Your task to perform on an android device: turn off translation in the chrome app Image 0: 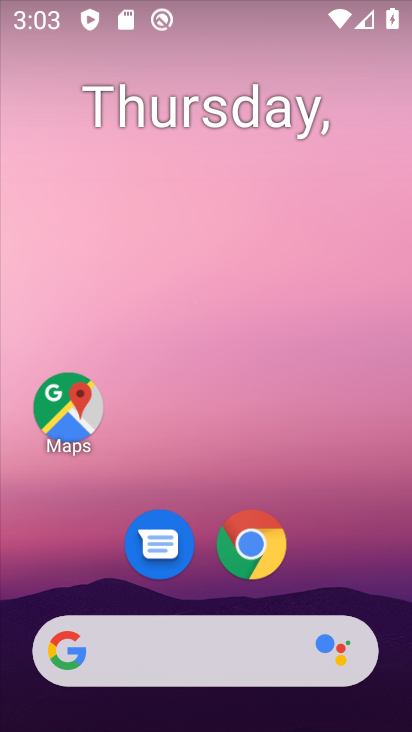
Step 0: click (243, 543)
Your task to perform on an android device: turn off translation in the chrome app Image 1: 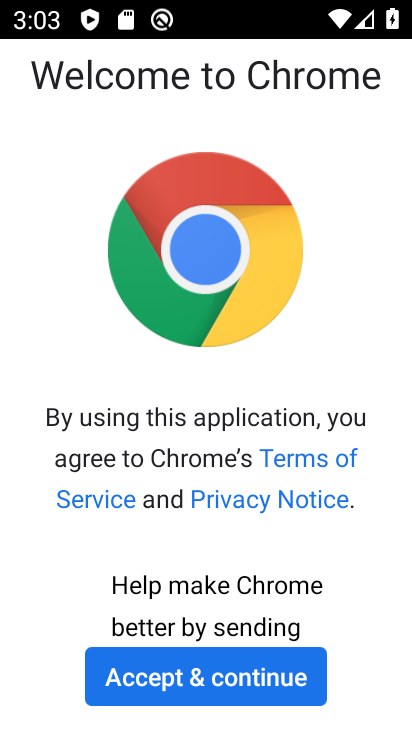
Step 1: click (160, 669)
Your task to perform on an android device: turn off translation in the chrome app Image 2: 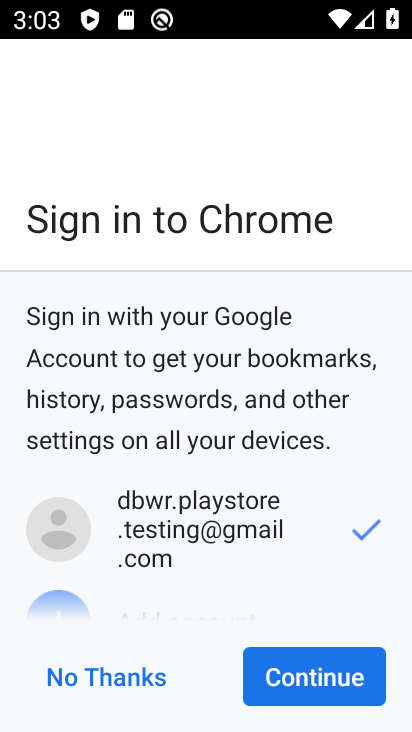
Step 2: click (264, 680)
Your task to perform on an android device: turn off translation in the chrome app Image 3: 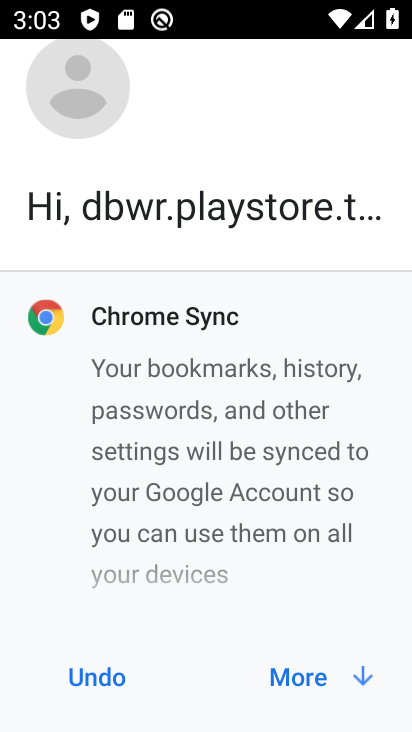
Step 3: click (265, 680)
Your task to perform on an android device: turn off translation in the chrome app Image 4: 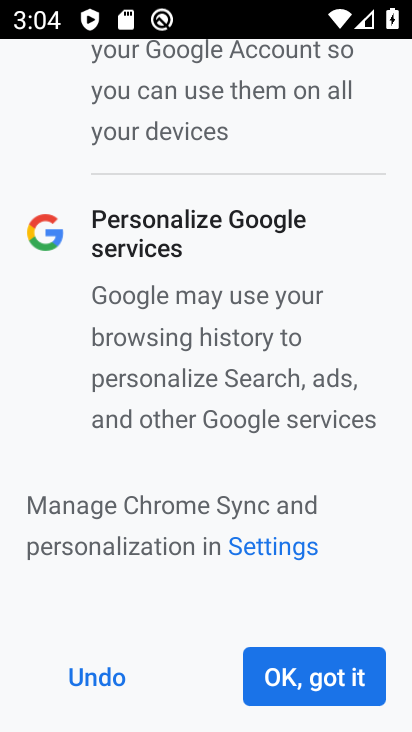
Step 4: click (273, 677)
Your task to perform on an android device: turn off translation in the chrome app Image 5: 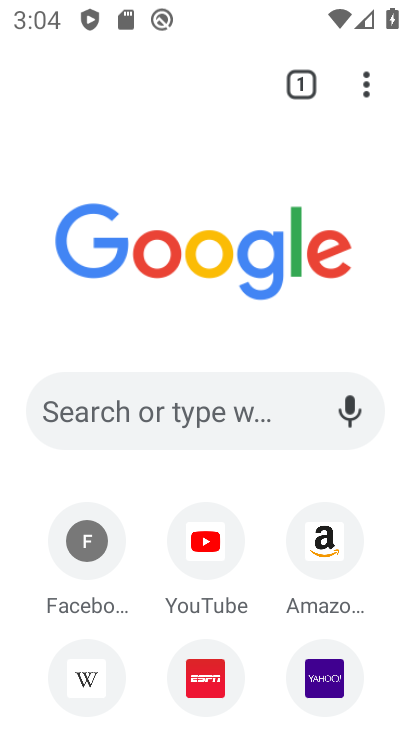
Step 5: click (368, 78)
Your task to perform on an android device: turn off translation in the chrome app Image 6: 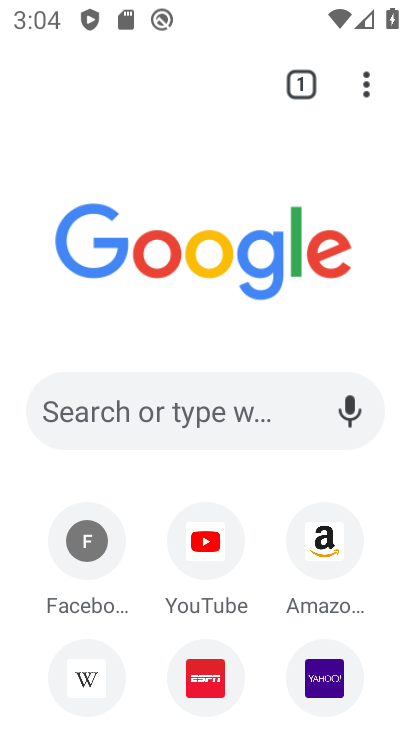
Step 6: click (368, 78)
Your task to perform on an android device: turn off translation in the chrome app Image 7: 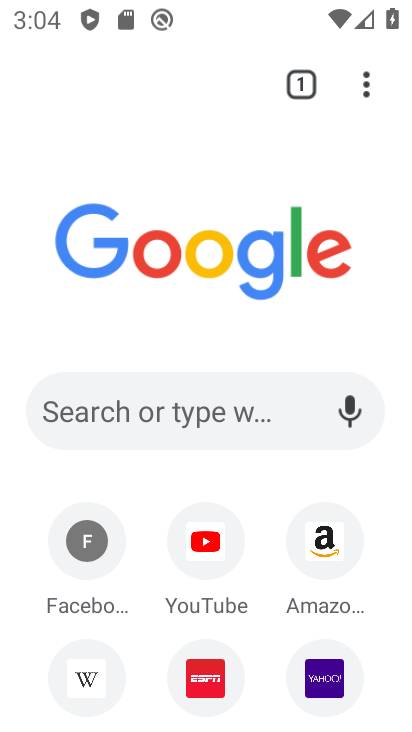
Step 7: click (359, 86)
Your task to perform on an android device: turn off translation in the chrome app Image 8: 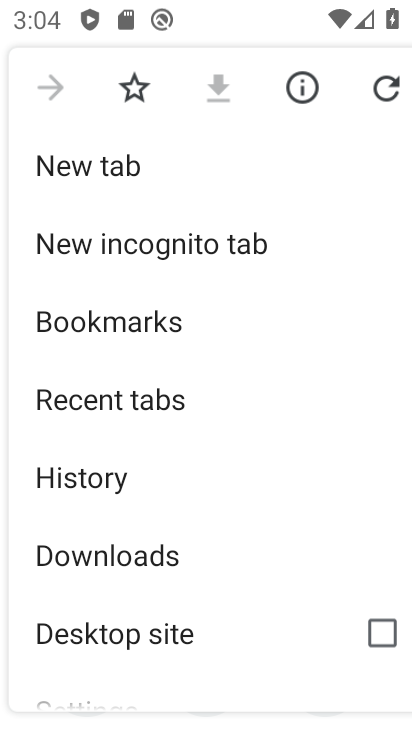
Step 8: drag from (140, 571) to (145, 254)
Your task to perform on an android device: turn off translation in the chrome app Image 9: 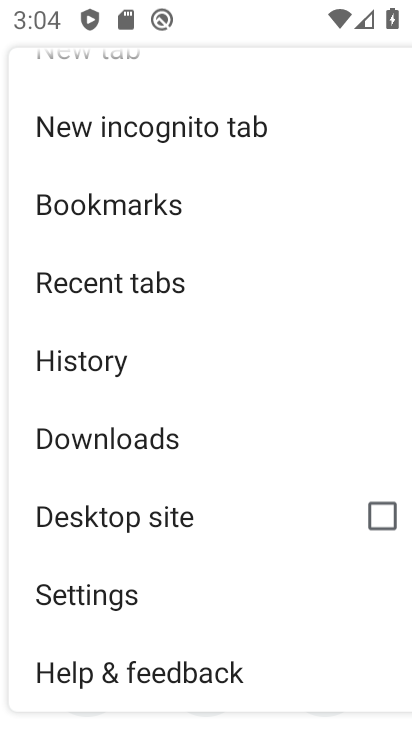
Step 9: click (145, 588)
Your task to perform on an android device: turn off translation in the chrome app Image 10: 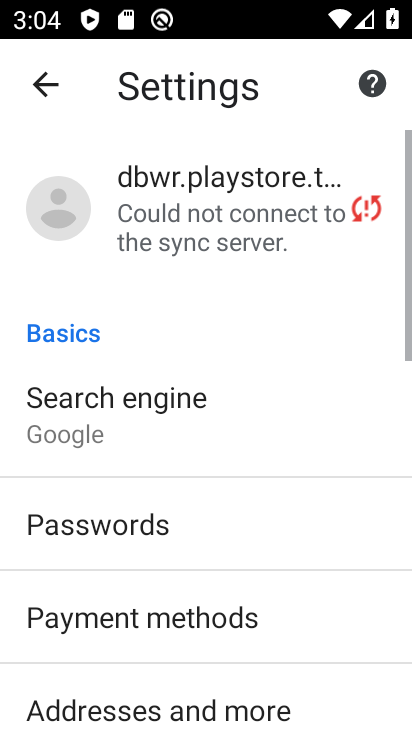
Step 10: drag from (146, 587) to (165, 58)
Your task to perform on an android device: turn off translation in the chrome app Image 11: 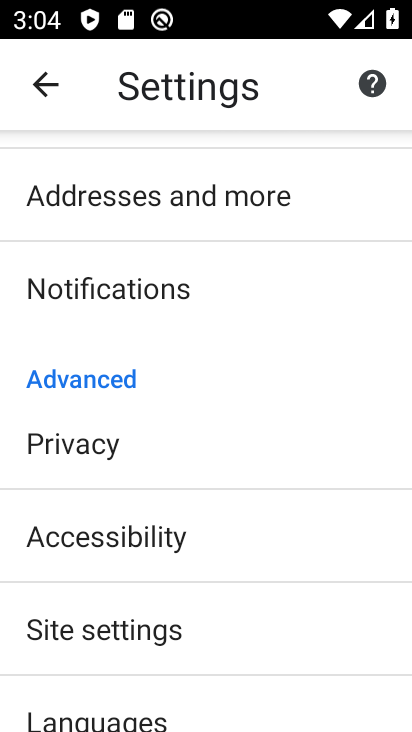
Step 11: drag from (161, 613) to (206, 191)
Your task to perform on an android device: turn off translation in the chrome app Image 12: 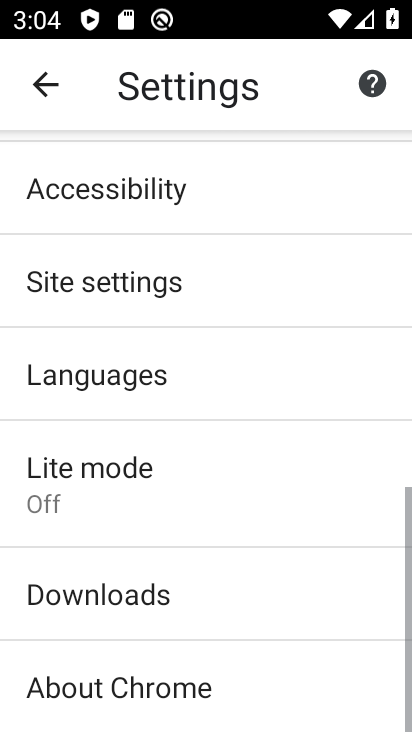
Step 12: drag from (230, 620) to (240, 28)
Your task to perform on an android device: turn off translation in the chrome app Image 13: 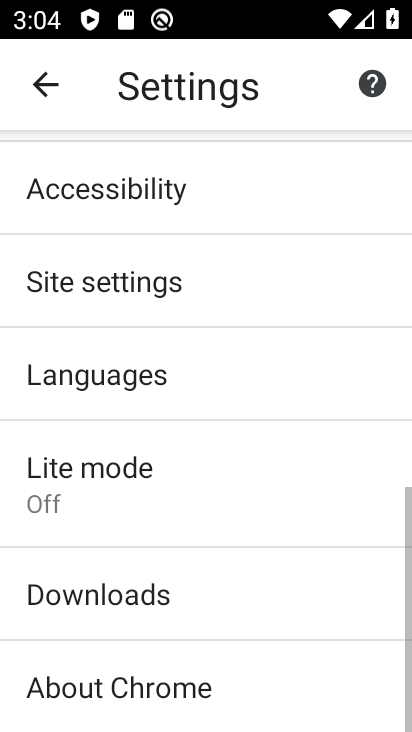
Step 13: drag from (188, 362) to (208, 557)
Your task to perform on an android device: turn off translation in the chrome app Image 14: 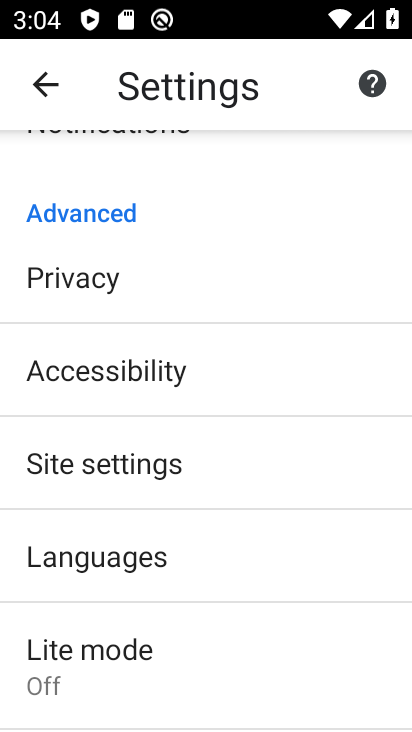
Step 14: drag from (188, 257) to (217, 377)
Your task to perform on an android device: turn off translation in the chrome app Image 15: 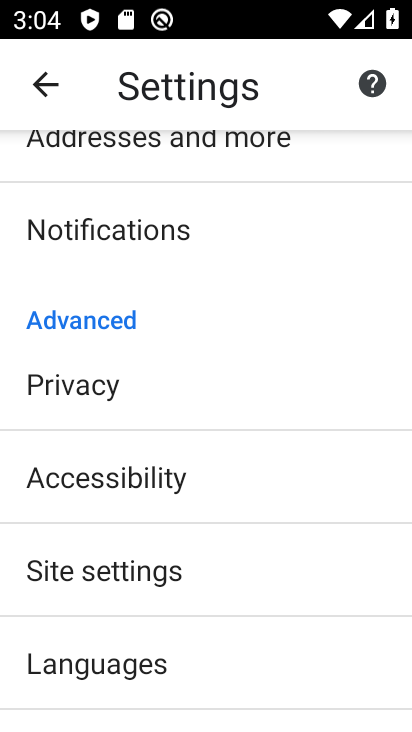
Step 15: click (137, 647)
Your task to perform on an android device: turn off translation in the chrome app Image 16: 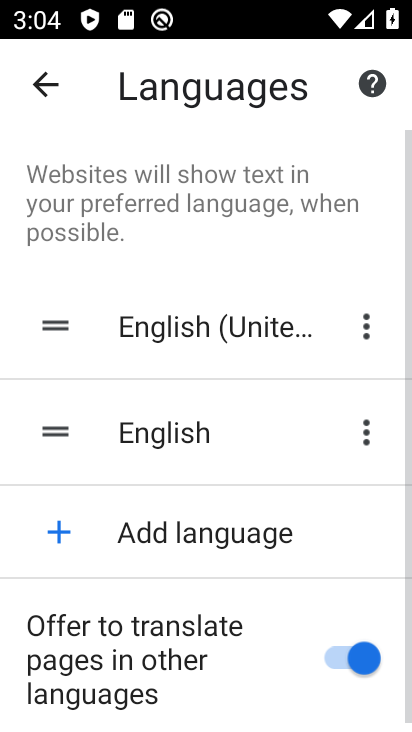
Step 16: drag from (320, 594) to (277, 197)
Your task to perform on an android device: turn off translation in the chrome app Image 17: 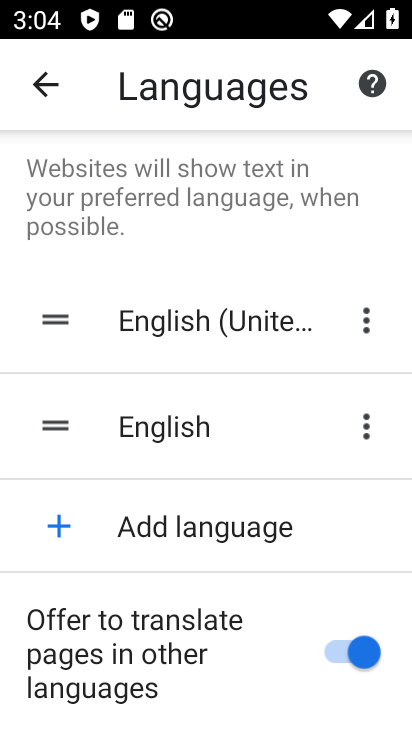
Step 17: click (359, 652)
Your task to perform on an android device: turn off translation in the chrome app Image 18: 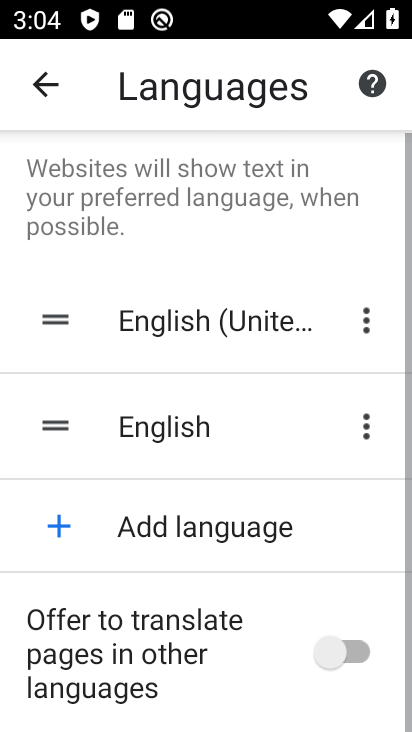
Step 18: task complete